Your task to perform on an android device: find which apps use the phone's location Image 0: 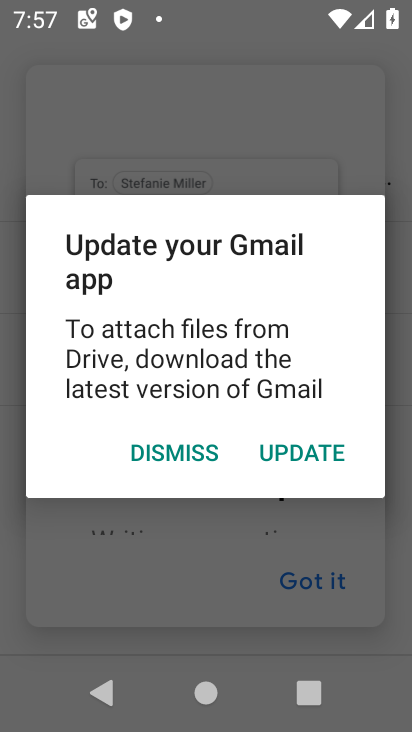
Step 0: press home button
Your task to perform on an android device: find which apps use the phone's location Image 1: 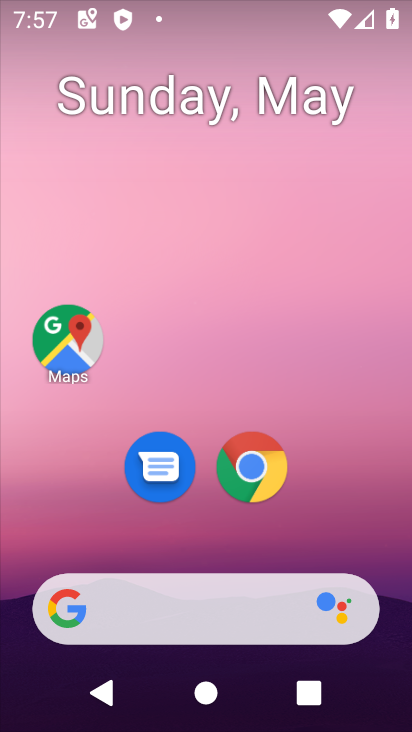
Step 1: drag from (48, 497) to (213, 118)
Your task to perform on an android device: find which apps use the phone's location Image 2: 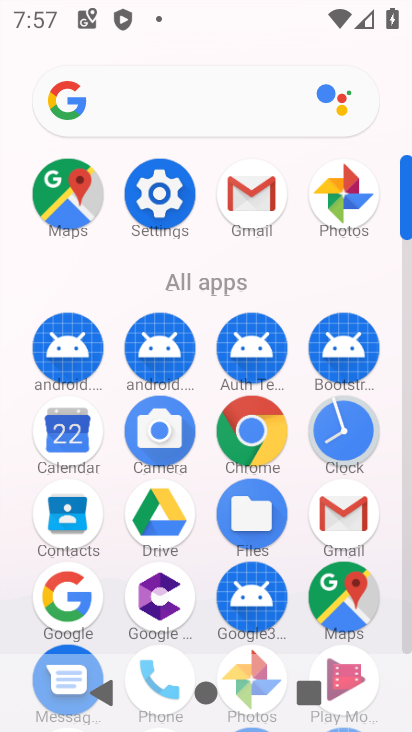
Step 2: click (155, 202)
Your task to perform on an android device: find which apps use the phone's location Image 3: 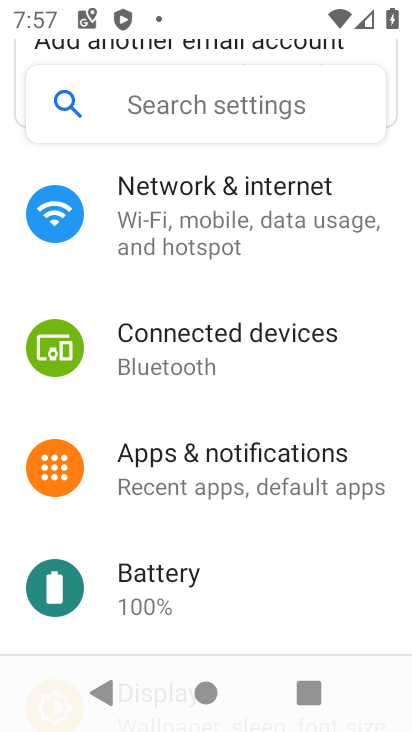
Step 3: drag from (7, 625) to (237, 160)
Your task to perform on an android device: find which apps use the phone's location Image 4: 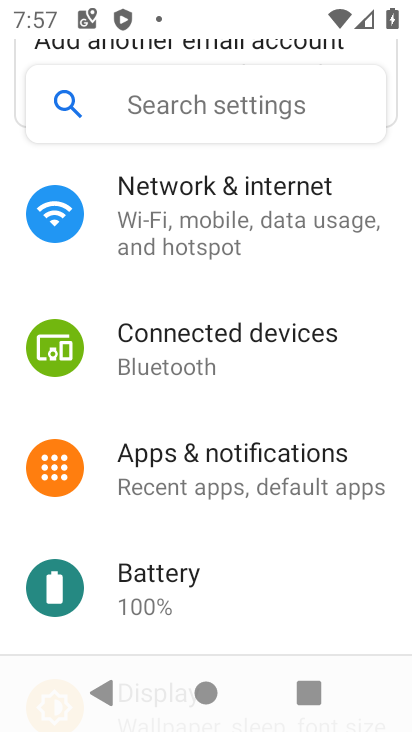
Step 4: drag from (10, 648) to (260, 179)
Your task to perform on an android device: find which apps use the phone's location Image 5: 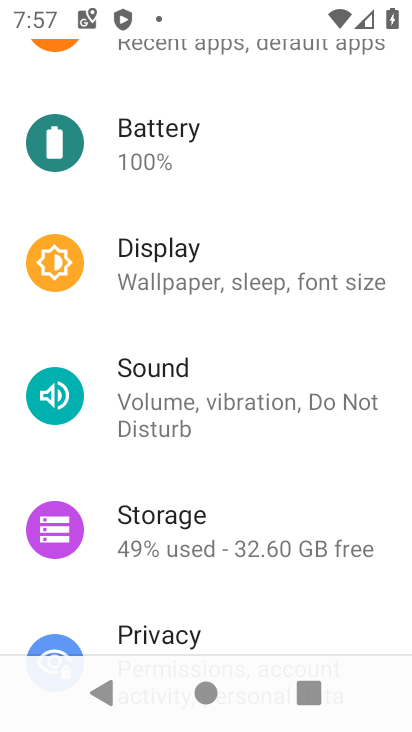
Step 5: drag from (10, 591) to (256, 213)
Your task to perform on an android device: find which apps use the phone's location Image 6: 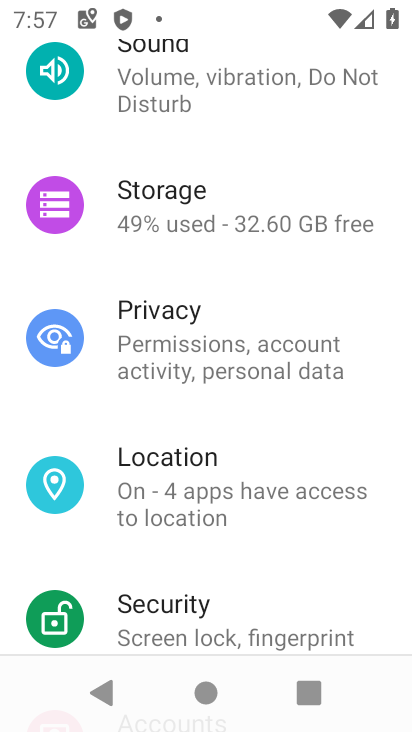
Step 6: click (165, 480)
Your task to perform on an android device: find which apps use the phone's location Image 7: 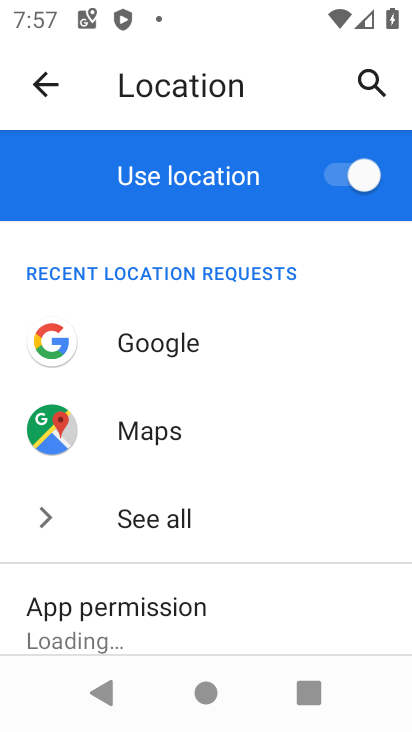
Step 7: click (140, 604)
Your task to perform on an android device: find which apps use the phone's location Image 8: 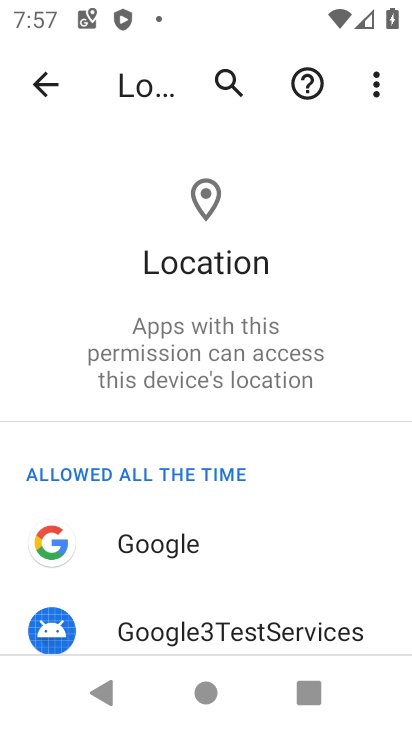
Step 8: task complete